Your task to perform on an android device: toggle improve location accuracy Image 0: 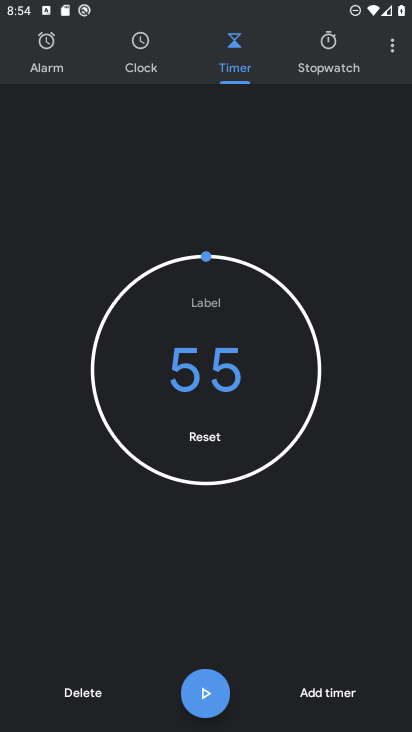
Step 0: press home button
Your task to perform on an android device: toggle improve location accuracy Image 1: 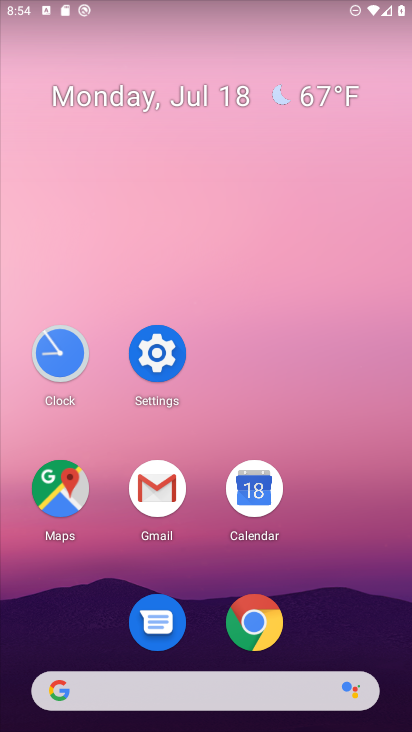
Step 1: click (164, 353)
Your task to perform on an android device: toggle improve location accuracy Image 2: 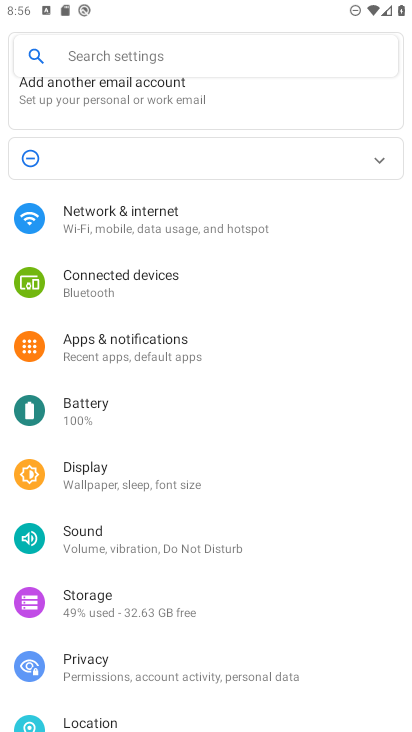
Step 2: click (92, 715)
Your task to perform on an android device: toggle improve location accuracy Image 3: 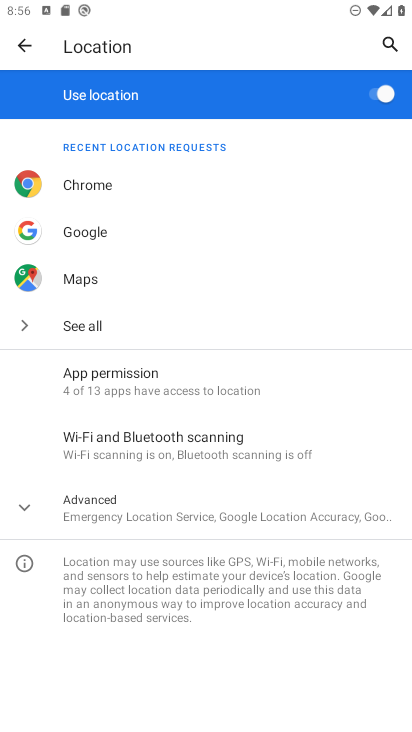
Step 3: click (47, 505)
Your task to perform on an android device: toggle improve location accuracy Image 4: 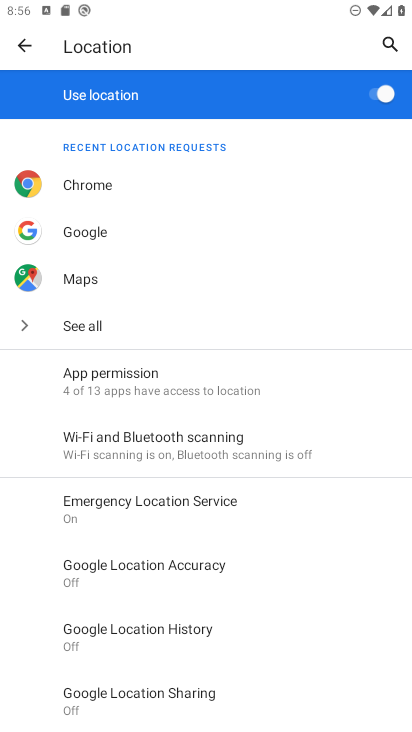
Step 4: click (166, 570)
Your task to perform on an android device: toggle improve location accuracy Image 5: 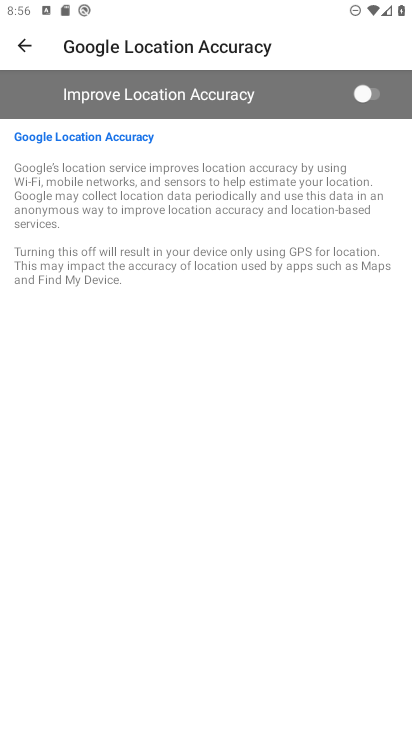
Step 5: click (366, 89)
Your task to perform on an android device: toggle improve location accuracy Image 6: 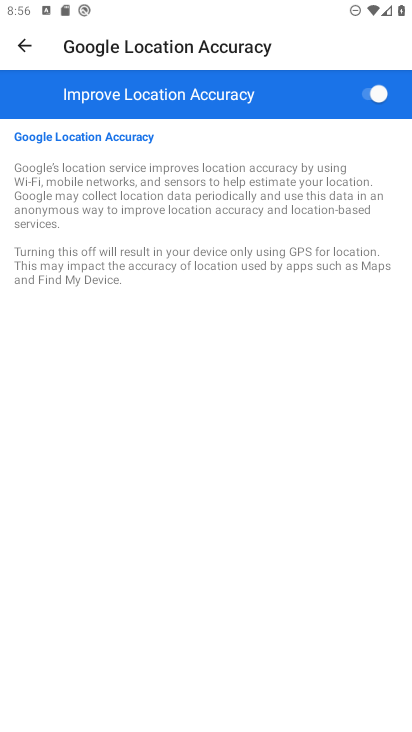
Step 6: task complete